Your task to perform on an android device: Open Chrome and go to the settings page Image 0: 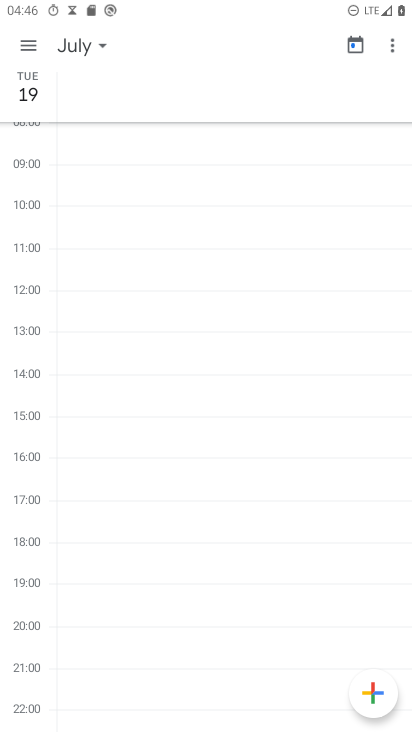
Step 0: press home button
Your task to perform on an android device: Open Chrome and go to the settings page Image 1: 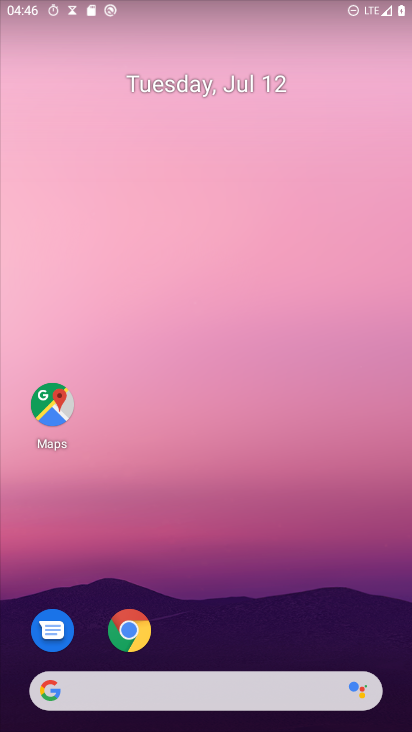
Step 1: drag from (219, 619) to (272, 36)
Your task to perform on an android device: Open Chrome and go to the settings page Image 2: 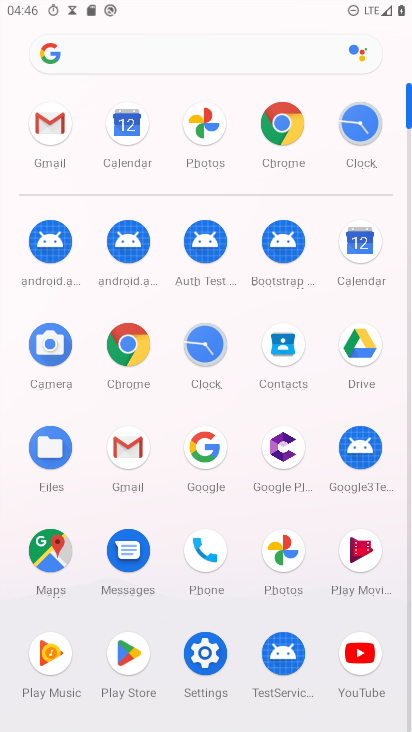
Step 2: click (136, 344)
Your task to perform on an android device: Open Chrome and go to the settings page Image 3: 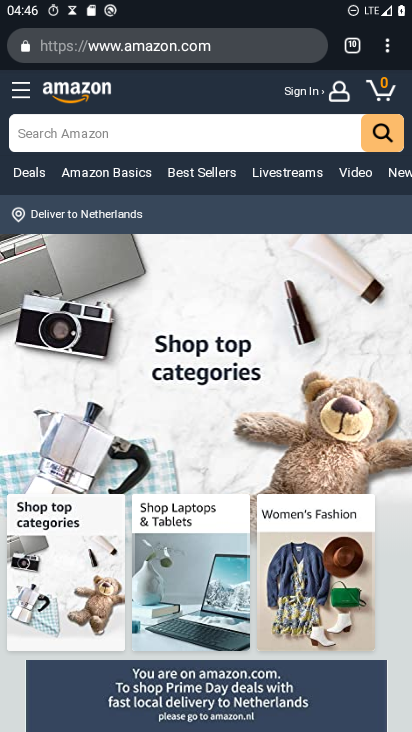
Step 3: task complete